Your task to perform on an android device: manage bookmarks in the chrome app Image 0: 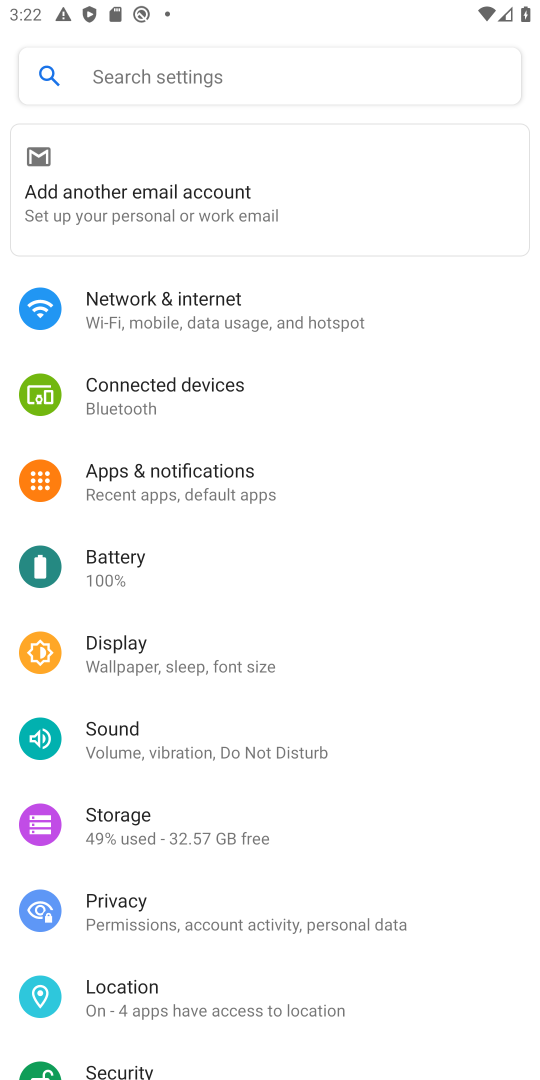
Step 0: press back button
Your task to perform on an android device: manage bookmarks in the chrome app Image 1: 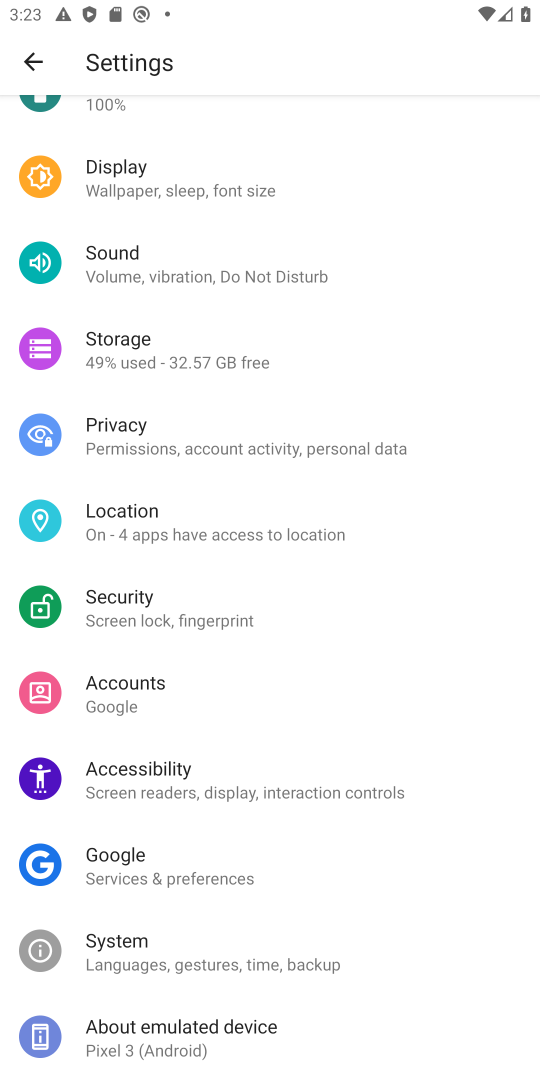
Step 1: press home button
Your task to perform on an android device: manage bookmarks in the chrome app Image 2: 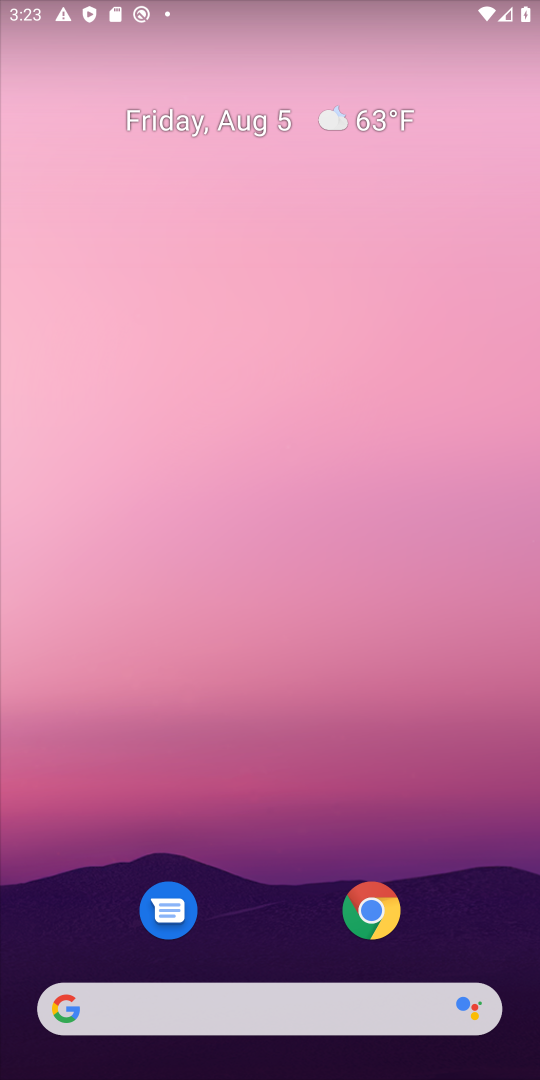
Step 2: click (365, 926)
Your task to perform on an android device: manage bookmarks in the chrome app Image 3: 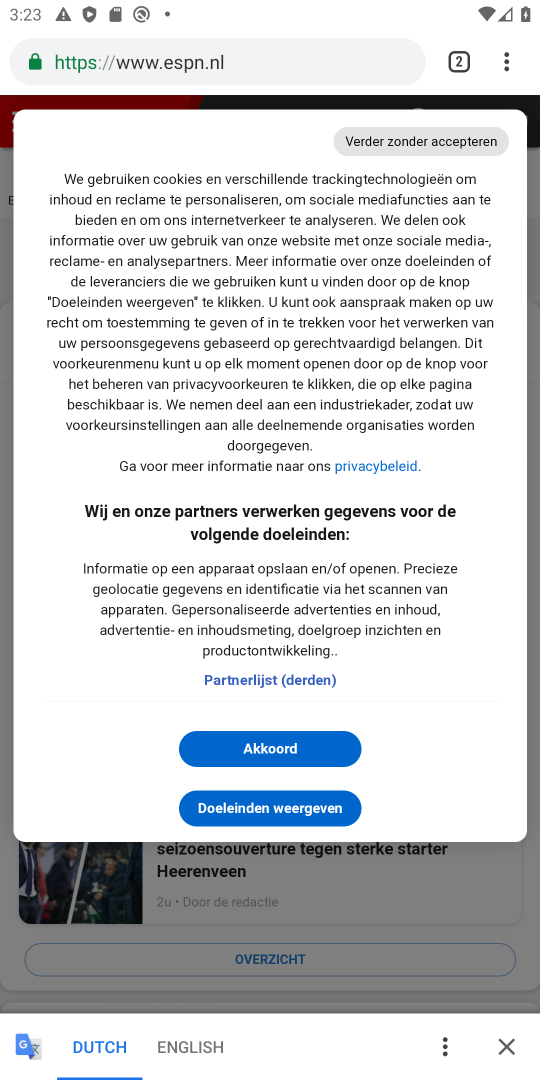
Step 3: click (508, 66)
Your task to perform on an android device: manage bookmarks in the chrome app Image 4: 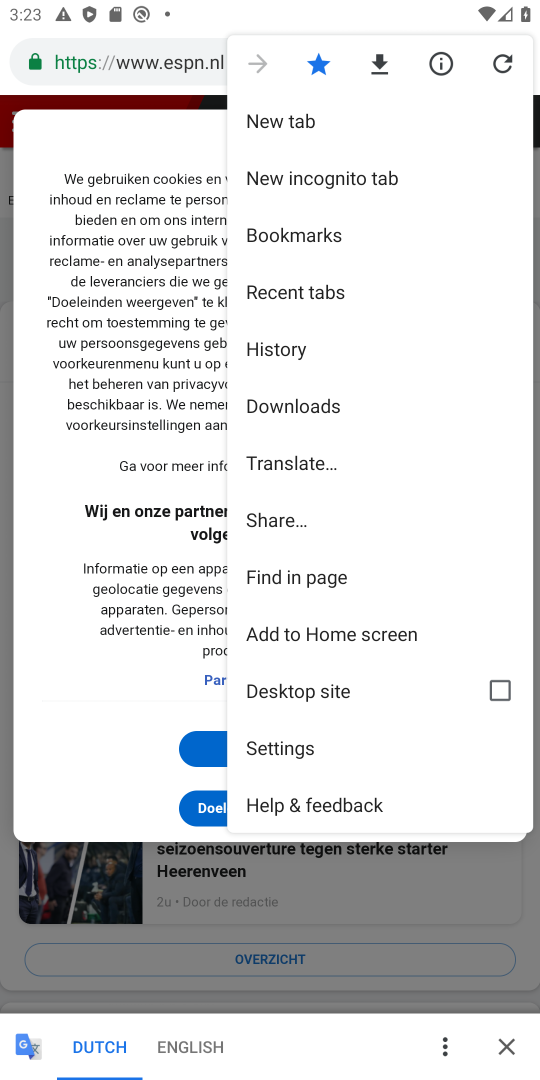
Step 4: click (375, 234)
Your task to perform on an android device: manage bookmarks in the chrome app Image 5: 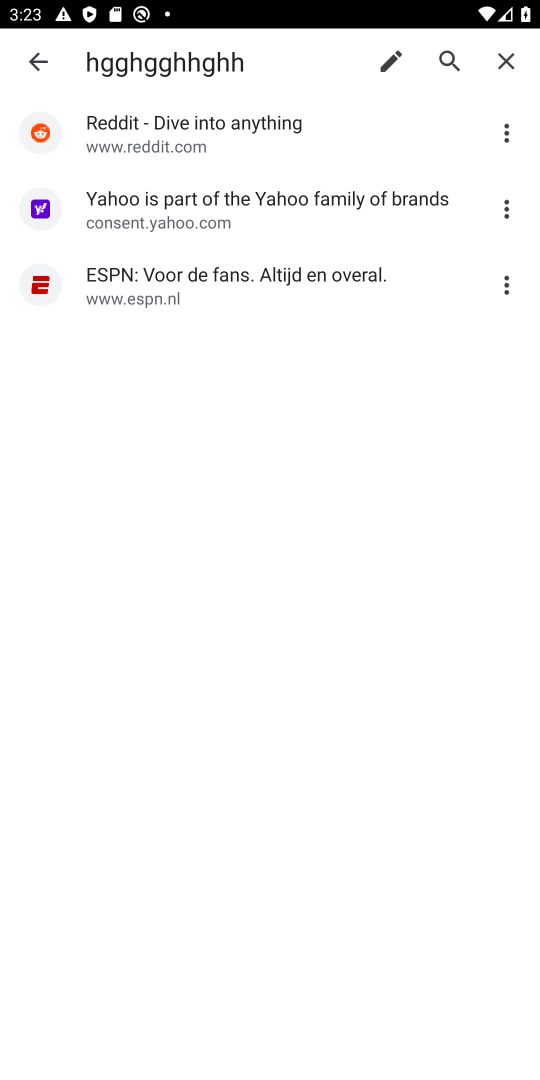
Step 5: click (334, 224)
Your task to perform on an android device: manage bookmarks in the chrome app Image 6: 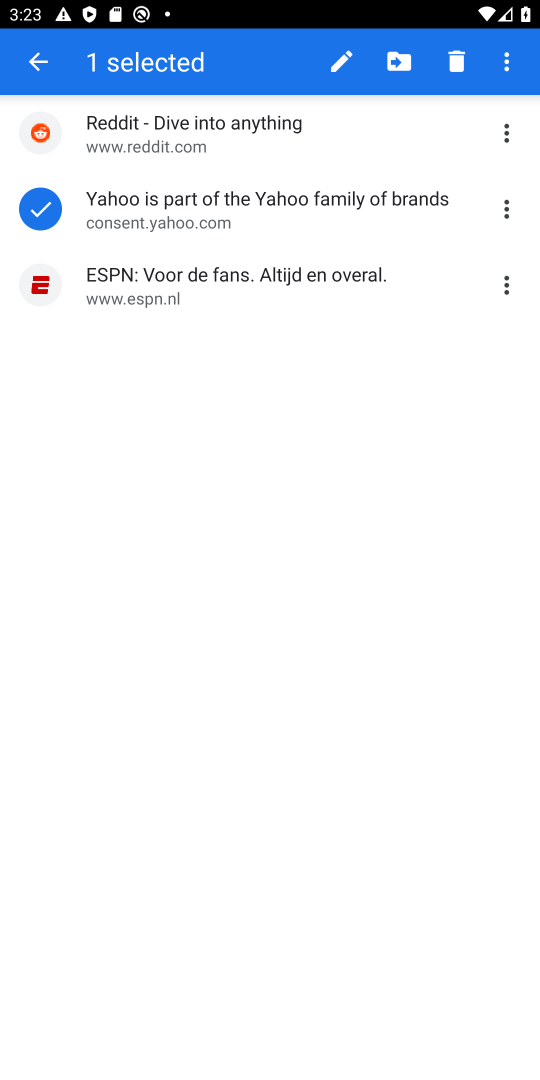
Step 6: click (390, 69)
Your task to perform on an android device: manage bookmarks in the chrome app Image 7: 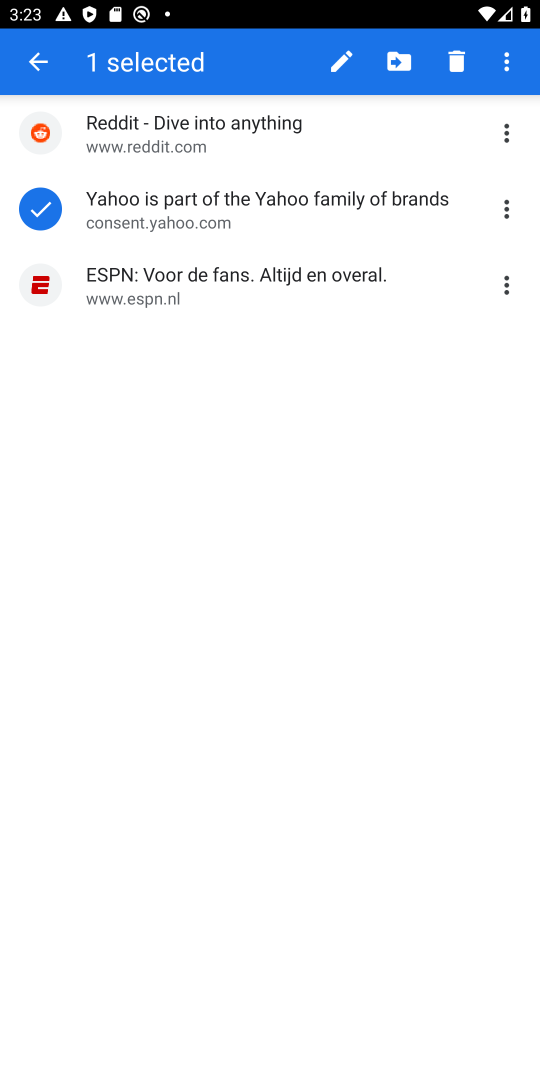
Step 7: click (397, 68)
Your task to perform on an android device: manage bookmarks in the chrome app Image 8: 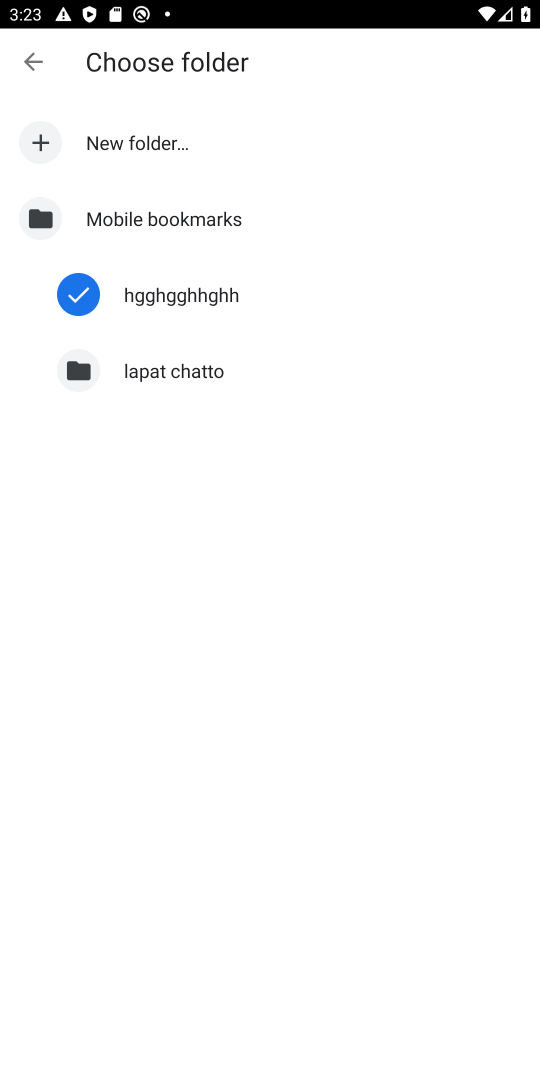
Step 8: click (197, 388)
Your task to perform on an android device: manage bookmarks in the chrome app Image 9: 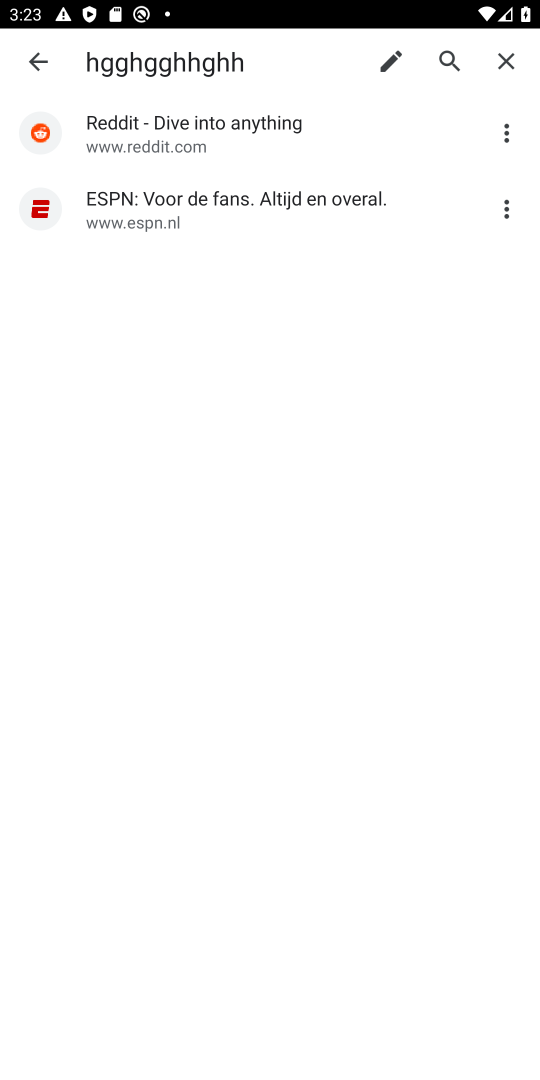
Step 9: task complete